Your task to perform on an android device: change alarm snooze length Image 0: 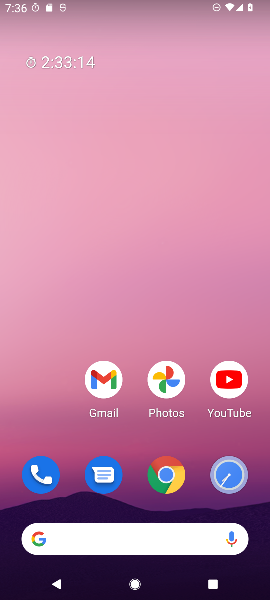
Step 0: press home button
Your task to perform on an android device: change alarm snooze length Image 1: 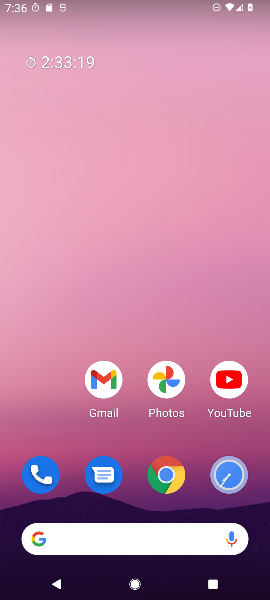
Step 1: drag from (42, 401) to (57, 199)
Your task to perform on an android device: change alarm snooze length Image 2: 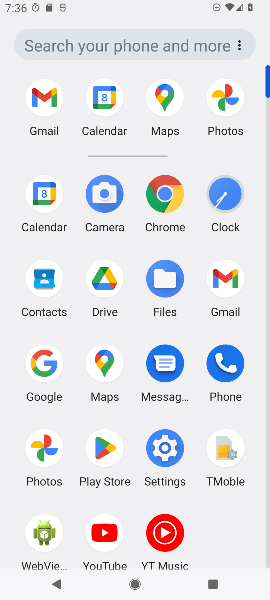
Step 2: click (230, 201)
Your task to perform on an android device: change alarm snooze length Image 3: 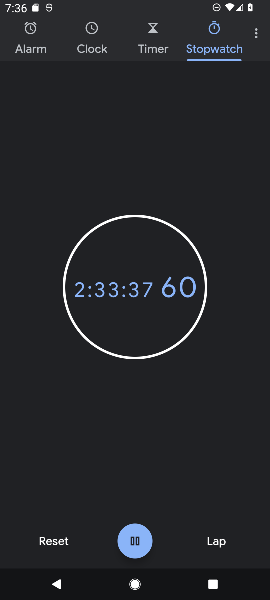
Step 3: click (255, 37)
Your task to perform on an android device: change alarm snooze length Image 4: 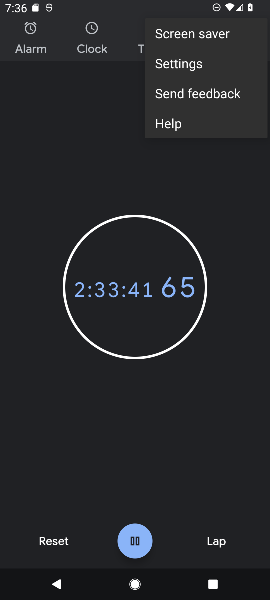
Step 4: click (195, 61)
Your task to perform on an android device: change alarm snooze length Image 5: 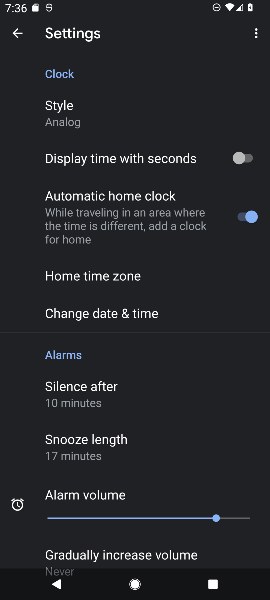
Step 5: drag from (224, 338) to (216, 270)
Your task to perform on an android device: change alarm snooze length Image 6: 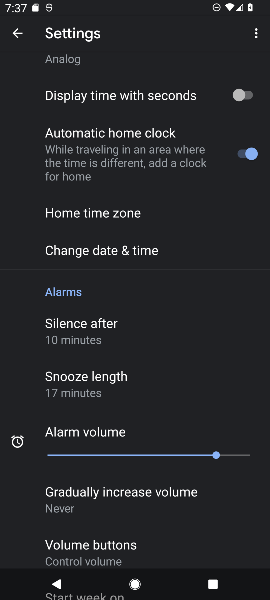
Step 6: drag from (199, 351) to (204, 280)
Your task to perform on an android device: change alarm snooze length Image 7: 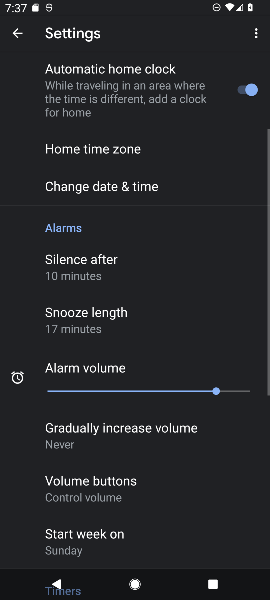
Step 7: drag from (179, 326) to (180, 275)
Your task to perform on an android device: change alarm snooze length Image 8: 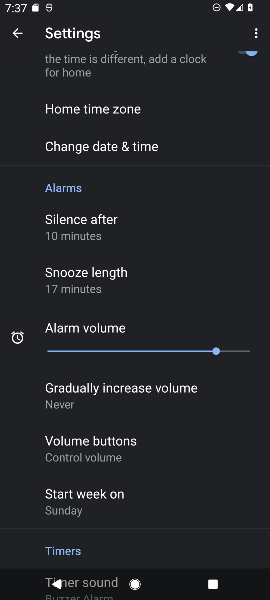
Step 8: drag from (186, 361) to (188, 279)
Your task to perform on an android device: change alarm snooze length Image 9: 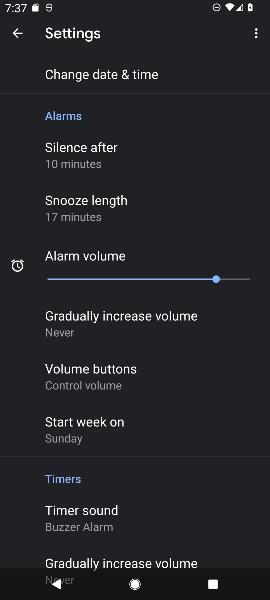
Step 9: drag from (188, 358) to (191, 278)
Your task to perform on an android device: change alarm snooze length Image 10: 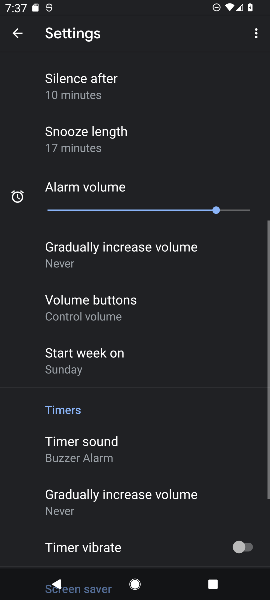
Step 10: drag from (220, 314) to (180, 280)
Your task to perform on an android device: change alarm snooze length Image 11: 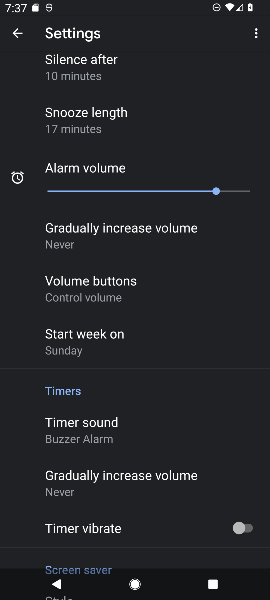
Step 11: drag from (221, 422) to (216, 338)
Your task to perform on an android device: change alarm snooze length Image 12: 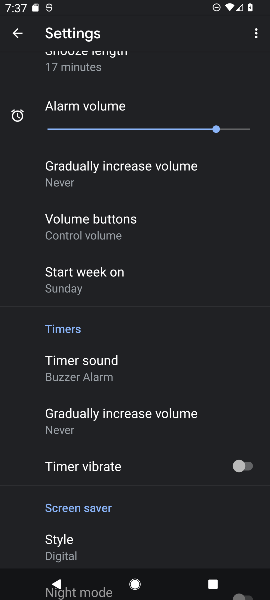
Step 12: drag from (208, 461) to (212, 368)
Your task to perform on an android device: change alarm snooze length Image 13: 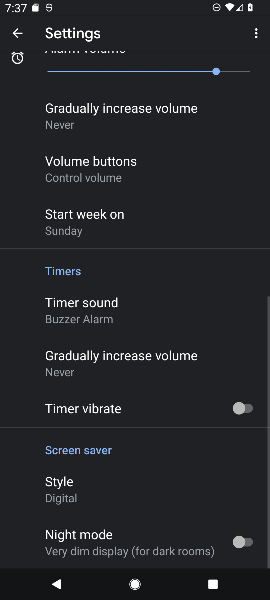
Step 13: drag from (182, 452) to (182, 386)
Your task to perform on an android device: change alarm snooze length Image 14: 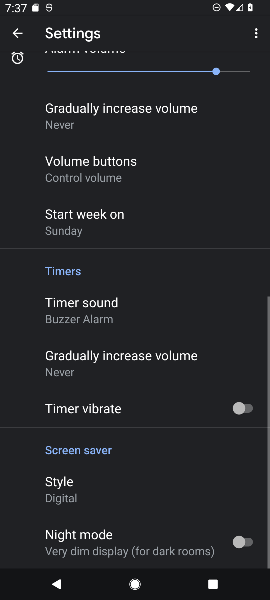
Step 14: drag from (184, 262) to (184, 339)
Your task to perform on an android device: change alarm snooze length Image 15: 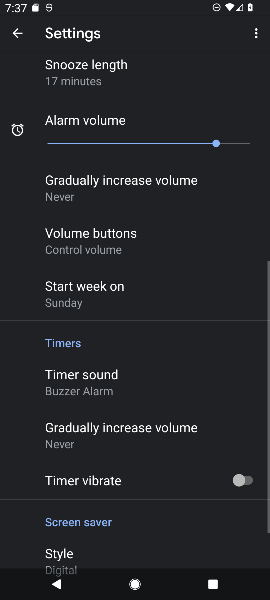
Step 15: drag from (192, 240) to (193, 311)
Your task to perform on an android device: change alarm snooze length Image 16: 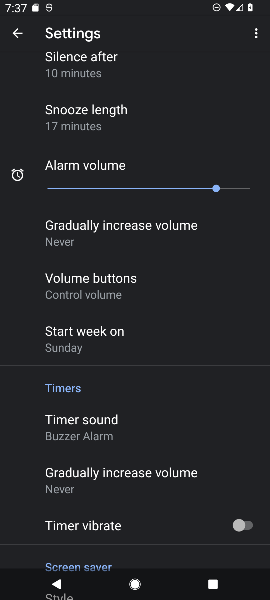
Step 16: drag from (224, 241) to (223, 312)
Your task to perform on an android device: change alarm snooze length Image 17: 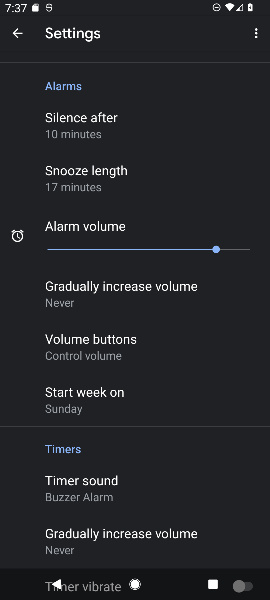
Step 17: drag from (223, 196) to (213, 313)
Your task to perform on an android device: change alarm snooze length Image 18: 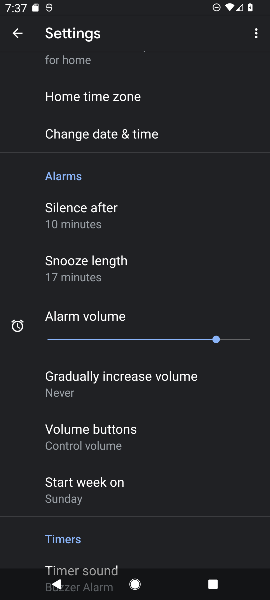
Step 18: drag from (186, 206) to (175, 289)
Your task to perform on an android device: change alarm snooze length Image 19: 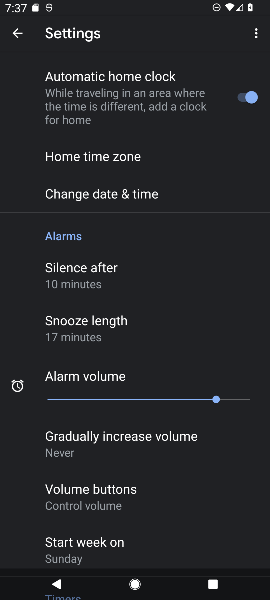
Step 19: click (80, 331)
Your task to perform on an android device: change alarm snooze length Image 20: 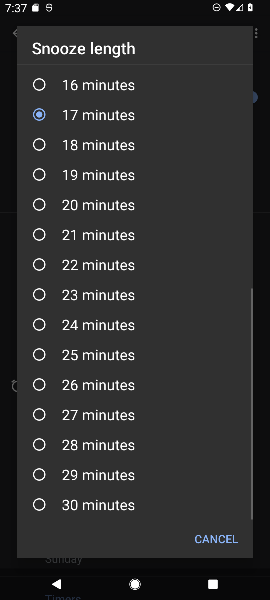
Step 20: click (80, 331)
Your task to perform on an android device: change alarm snooze length Image 21: 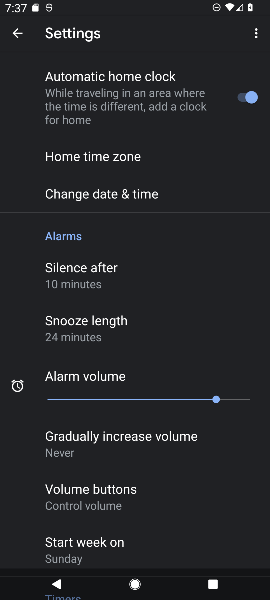
Step 21: task complete